Your task to perform on an android device: turn on sleep mode Image 0: 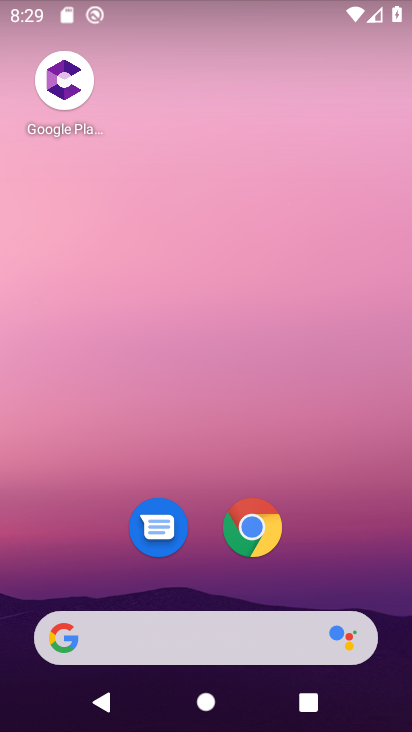
Step 0: drag from (372, 597) to (373, 19)
Your task to perform on an android device: turn on sleep mode Image 1: 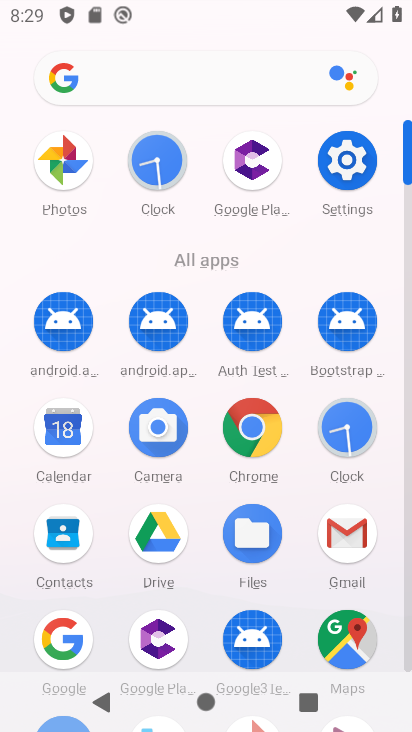
Step 1: click (345, 156)
Your task to perform on an android device: turn on sleep mode Image 2: 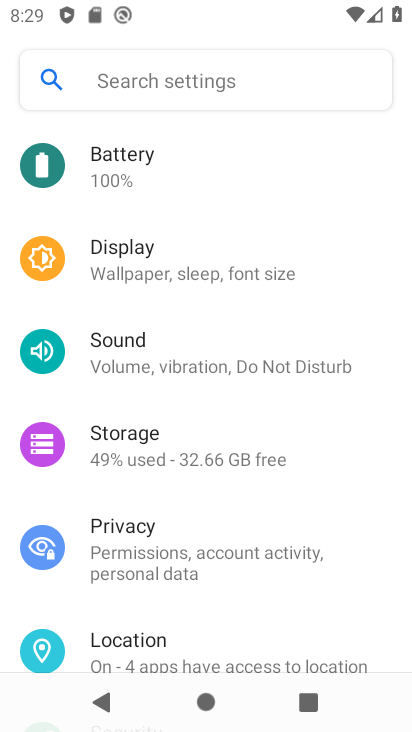
Step 2: click (148, 272)
Your task to perform on an android device: turn on sleep mode Image 3: 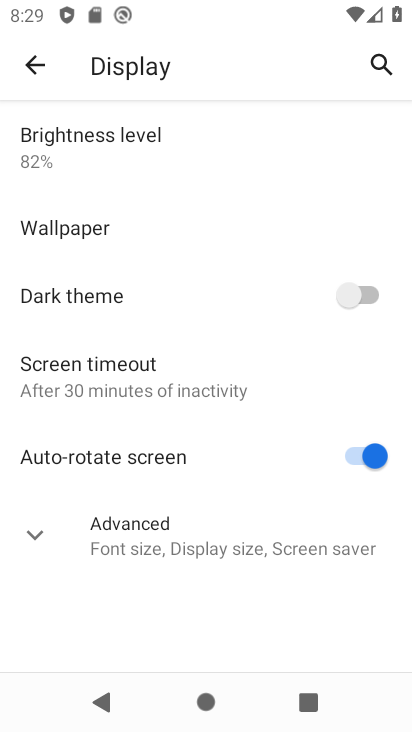
Step 3: click (33, 536)
Your task to perform on an android device: turn on sleep mode Image 4: 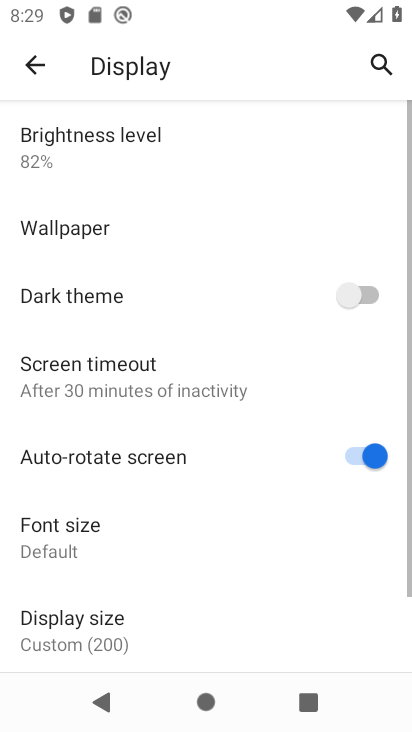
Step 4: task complete